Your task to perform on an android device: change keyboard looks Image 0: 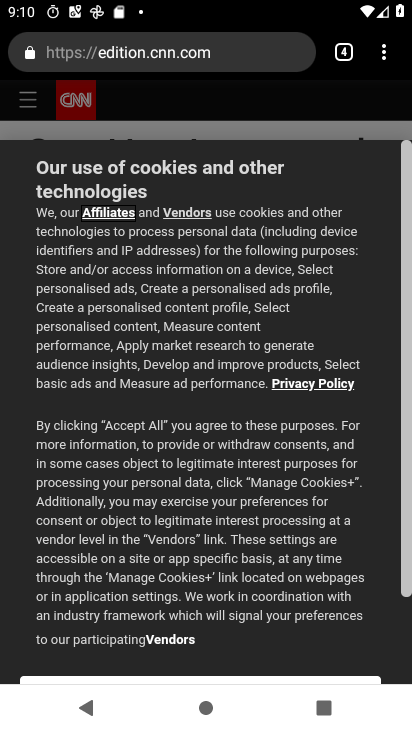
Step 0: press home button
Your task to perform on an android device: change keyboard looks Image 1: 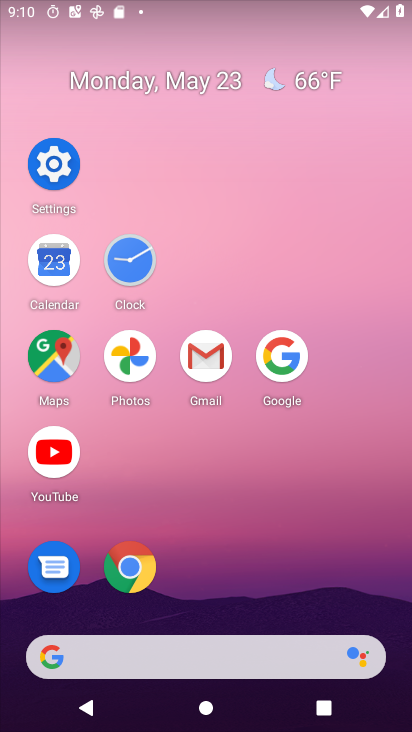
Step 1: click (47, 182)
Your task to perform on an android device: change keyboard looks Image 2: 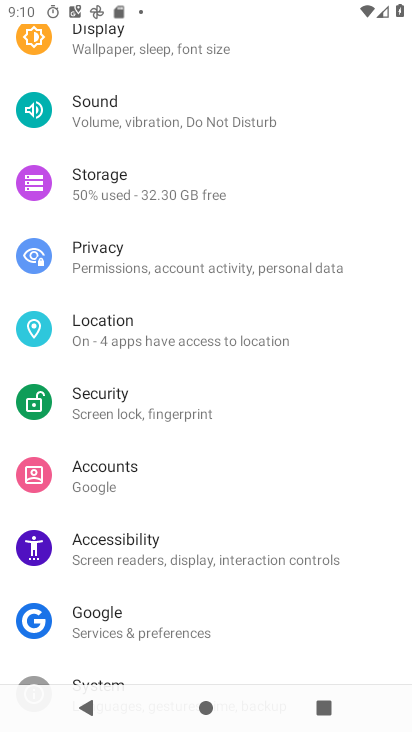
Step 2: click (157, 671)
Your task to perform on an android device: change keyboard looks Image 3: 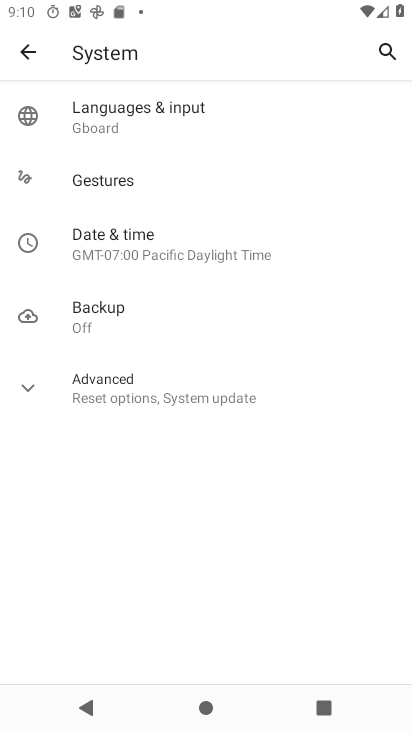
Step 3: click (129, 120)
Your task to perform on an android device: change keyboard looks Image 4: 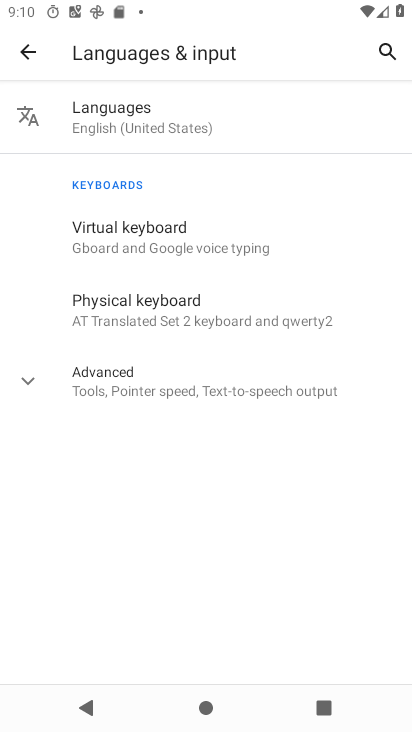
Step 4: click (173, 244)
Your task to perform on an android device: change keyboard looks Image 5: 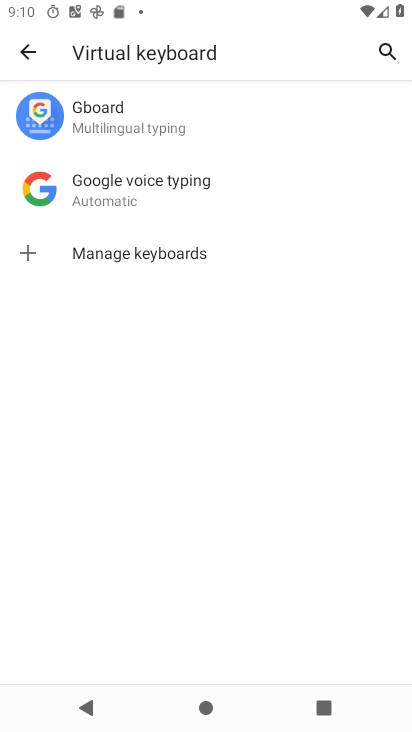
Step 5: click (140, 124)
Your task to perform on an android device: change keyboard looks Image 6: 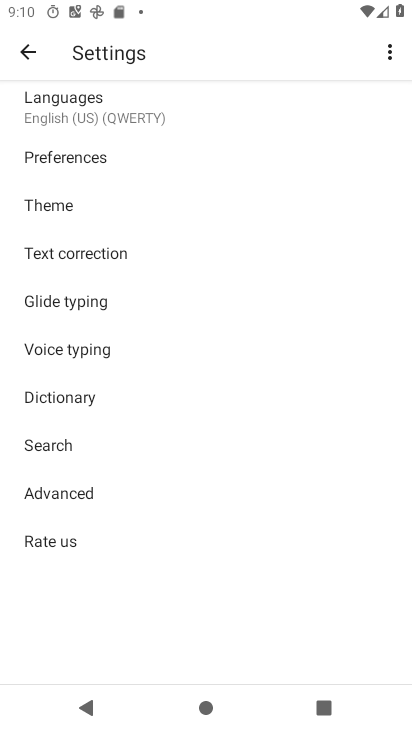
Step 6: click (105, 202)
Your task to perform on an android device: change keyboard looks Image 7: 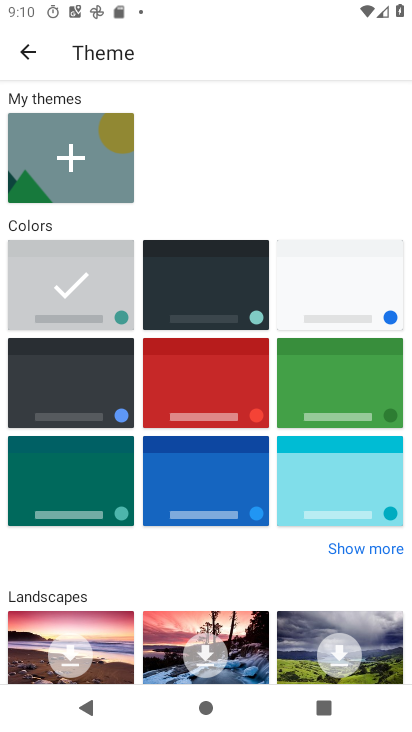
Step 7: click (388, 508)
Your task to perform on an android device: change keyboard looks Image 8: 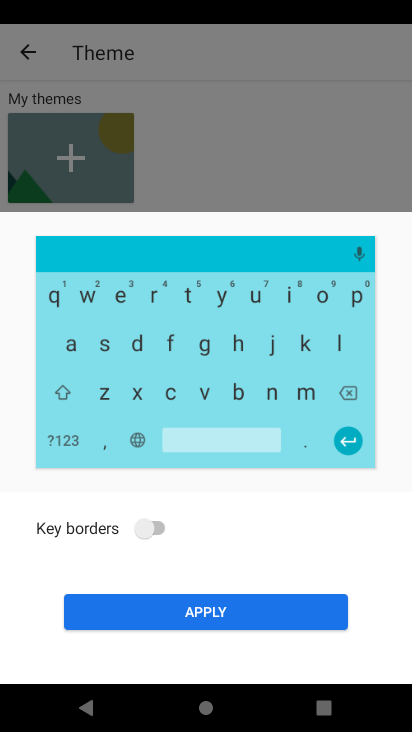
Step 8: click (147, 536)
Your task to perform on an android device: change keyboard looks Image 9: 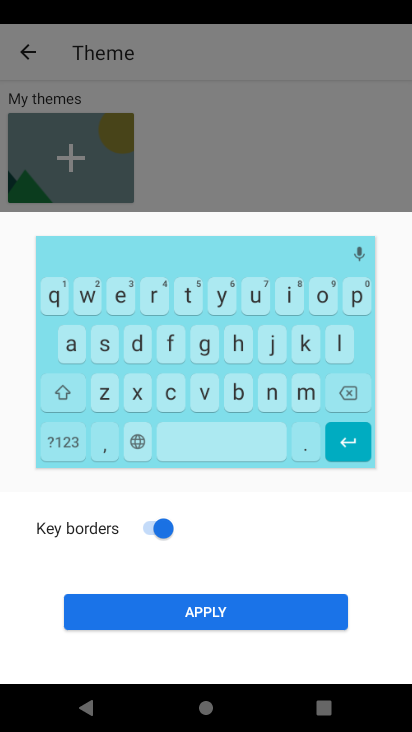
Step 9: click (260, 604)
Your task to perform on an android device: change keyboard looks Image 10: 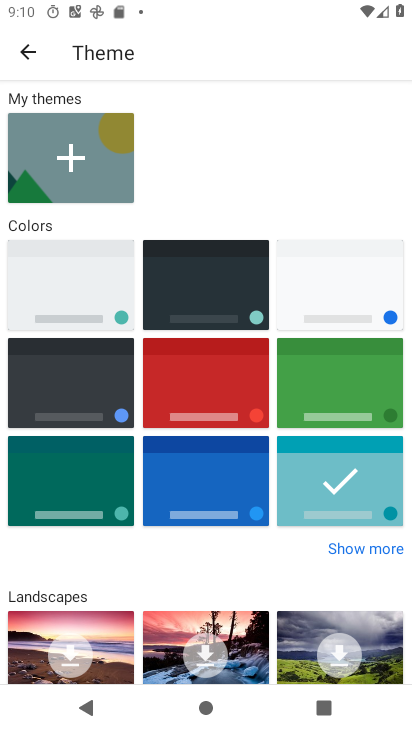
Step 10: task complete